Your task to perform on an android device: Open CNN.com Image 0: 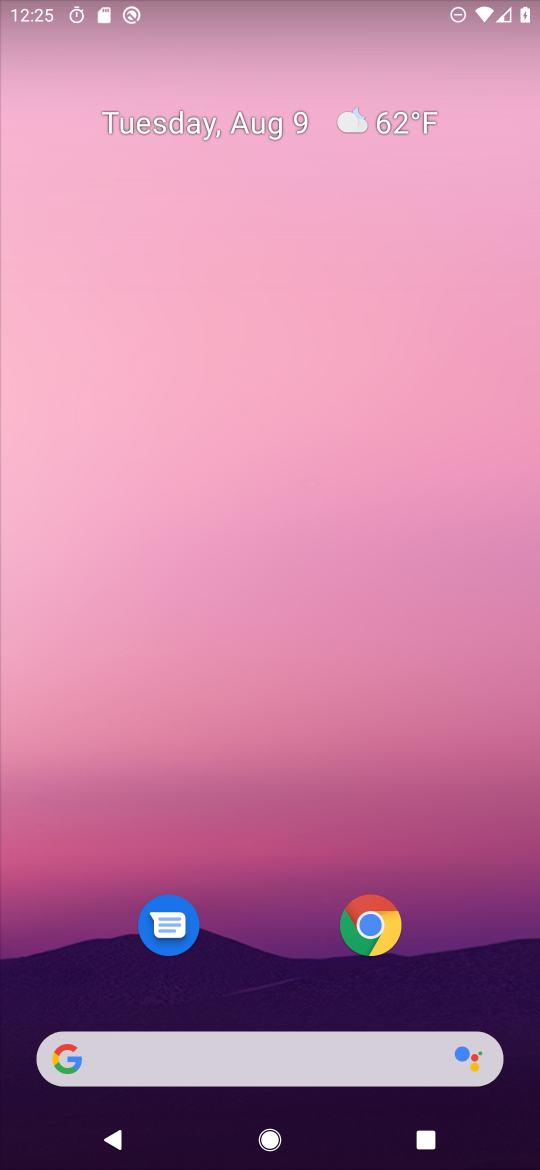
Step 0: drag from (259, 884) to (342, 291)
Your task to perform on an android device: Open CNN.com Image 1: 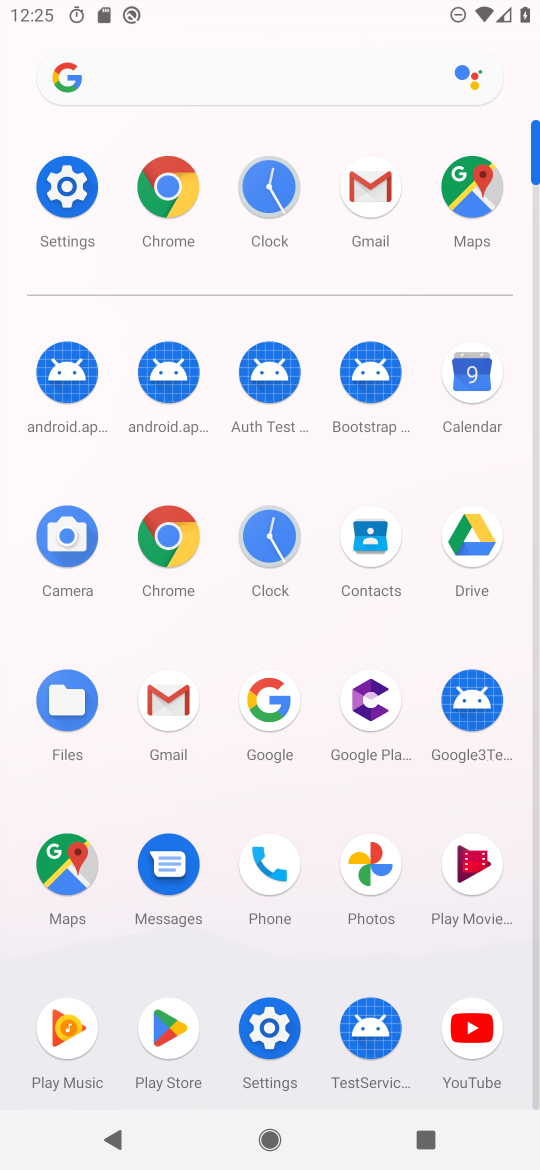
Step 1: click (153, 181)
Your task to perform on an android device: Open CNN.com Image 2: 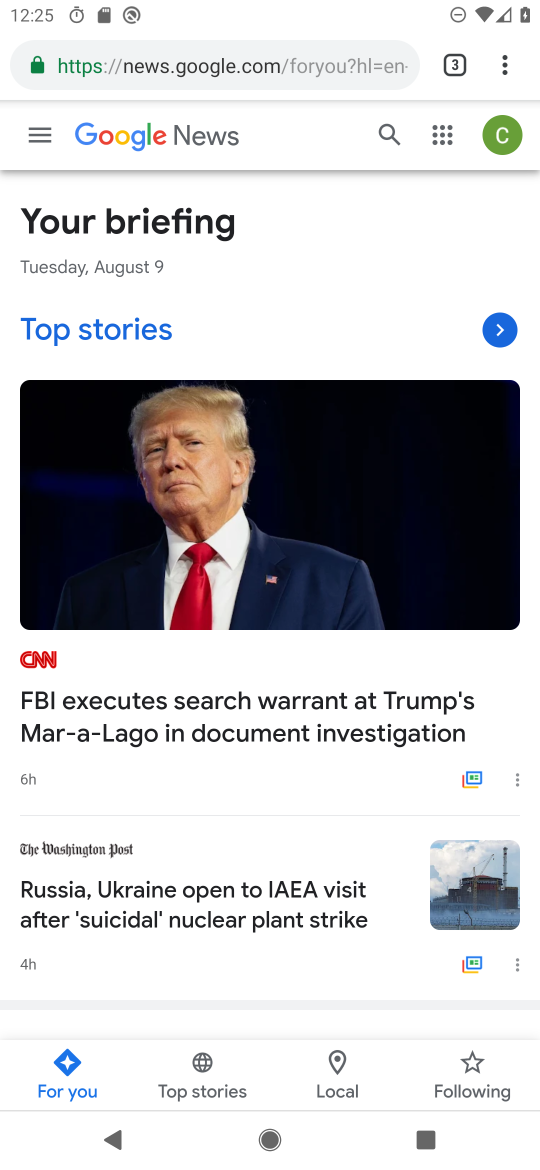
Step 2: click (259, 57)
Your task to perform on an android device: Open CNN.com Image 3: 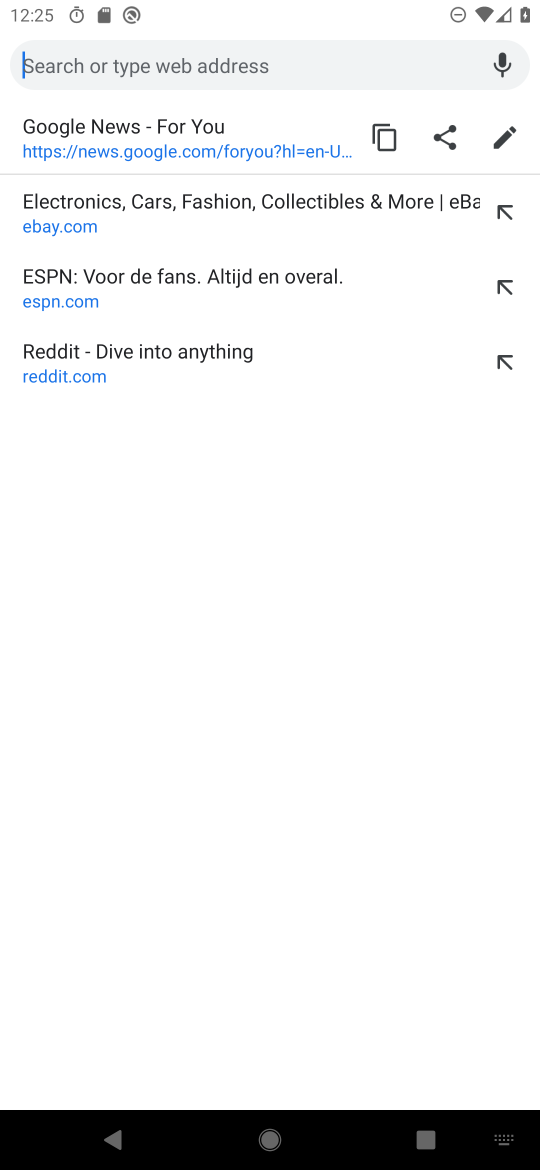
Step 3: type "cnn.com"
Your task to perform on an android device: Open CNN.com Image 4: 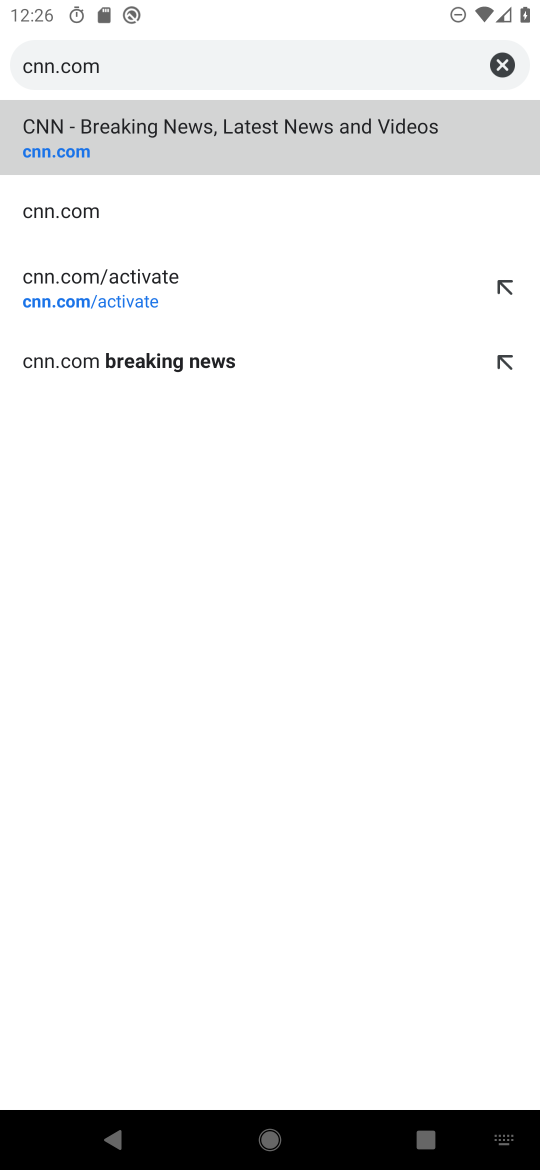
Step 4: click (113, 156)
Your task to perform on an android device: Open CNN.com Image 5: 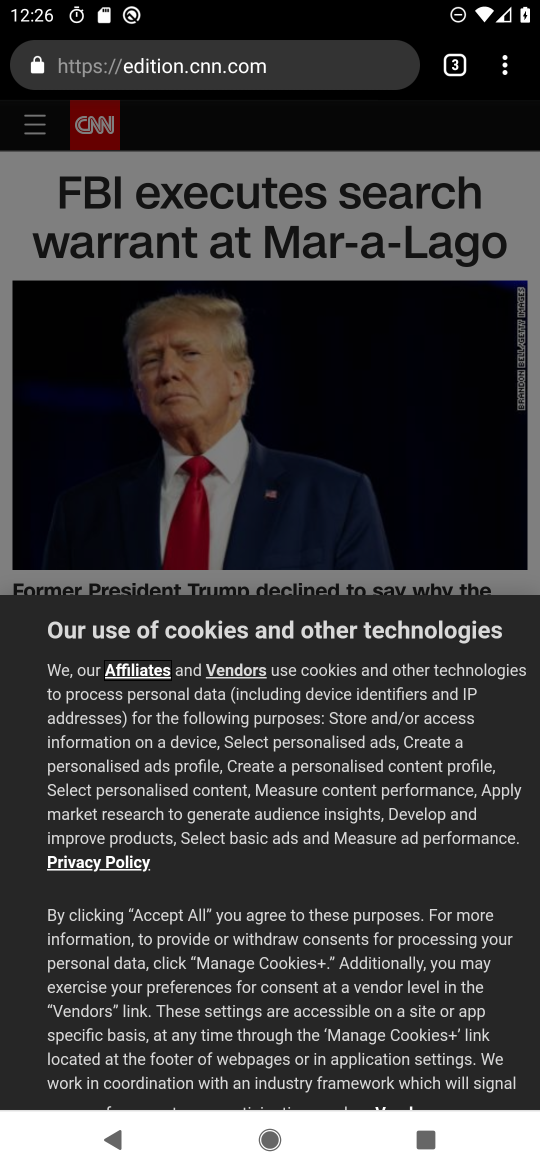
Step 5: task complete